Your task to perform on an android device: Open Google Chrome and click the shortcut for Amazon.com Image 0: 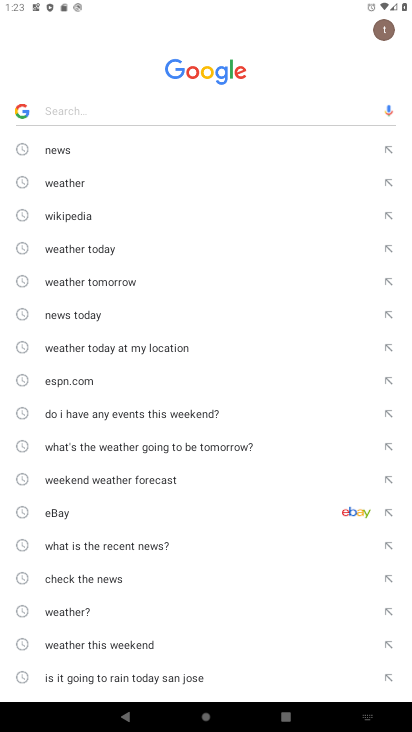
Step 0: press home button
Your task to perform on an android device: Open Google Chrome and click the shortcut for Amazon.com Image 1: 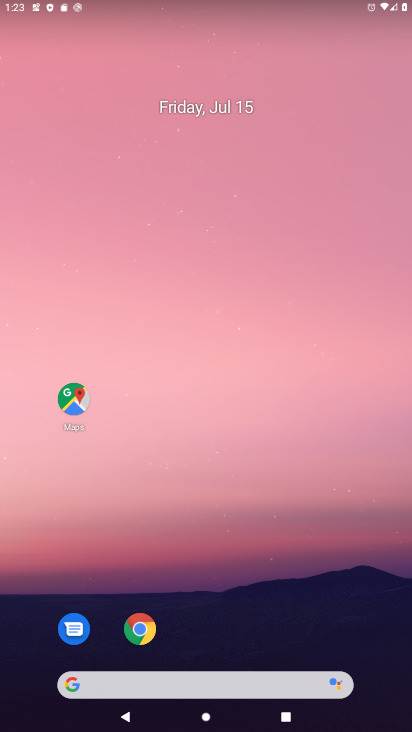
Step 1: drag from (316, 597) to (224, 121)
Your task to perform on an android device: Open Google Chrome and click the shortcut for Amazon.com Image 2: 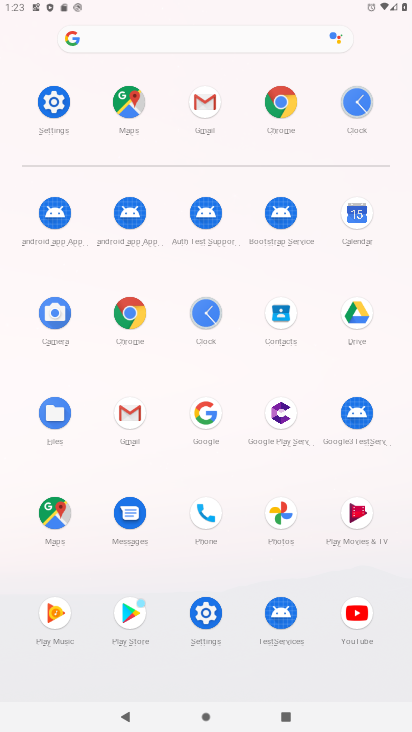
Step 2: click (133, 311)
Your task to perform on an android device: Open Google Chrome and click the shortcut for Amazon.com Image 3: 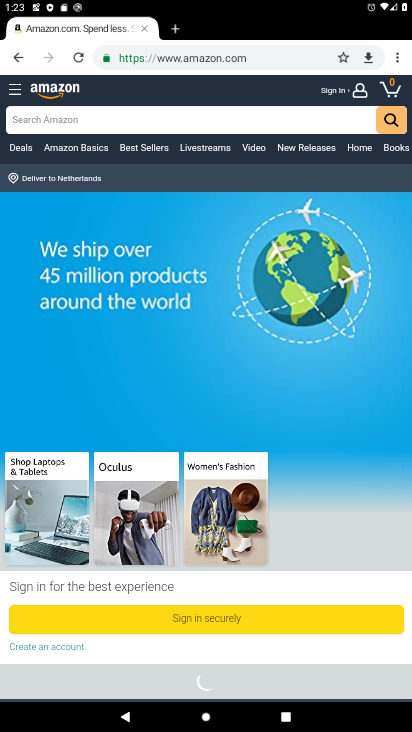
Step 3: click (403, 49)
Your task to perform on an android device: Open Google Chrome and click the shortcut for Amazon.com Image 4: 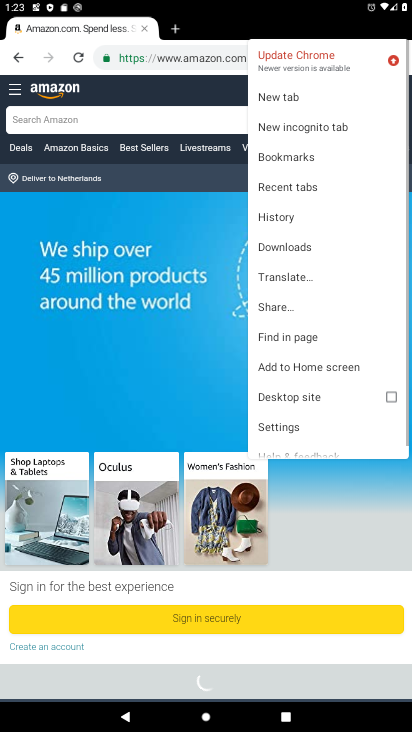
Step 4: click (309, 95)
Your task to perform on an android device: Open Google Chrome and click the shortcut for Amazon.com Image 5: 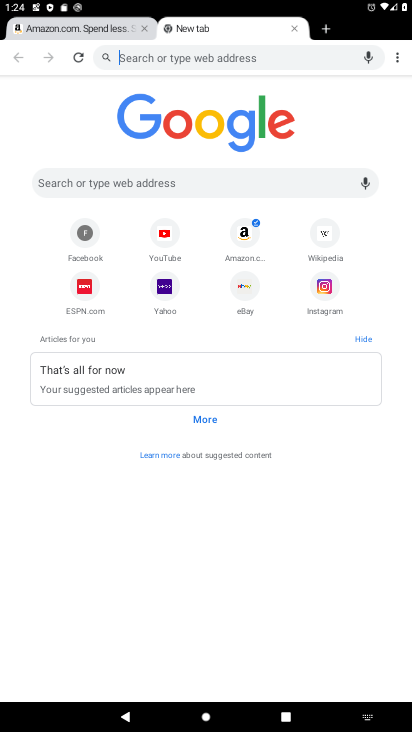
Step 5: click (248, 231)
Your task to perform on an android device: Open Google Chrome and click the shortcut for Amazon.com Image 6: 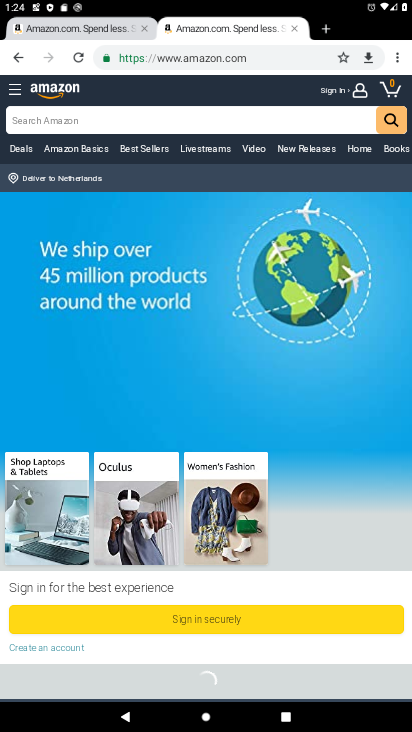
Step 6: task complete